Your task to perform on an android device: Add usb-a to the cart on bestbuy, then select checkout. Image 0: 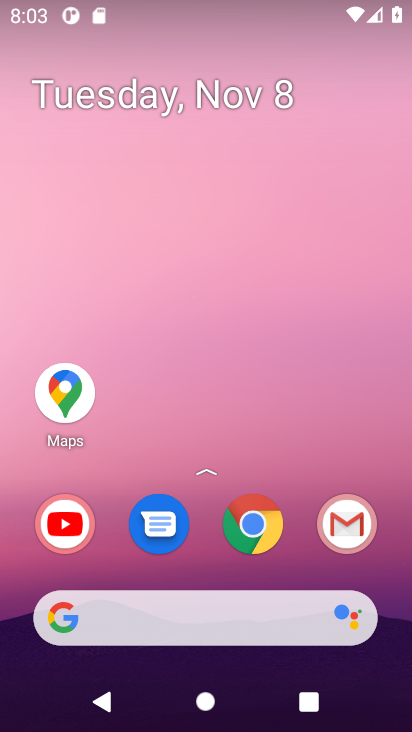
Step 0: click (257, 531)
Your task to perform on an android device: Add usb-a to the cart on bestbuy, then select checkout. Image 1: 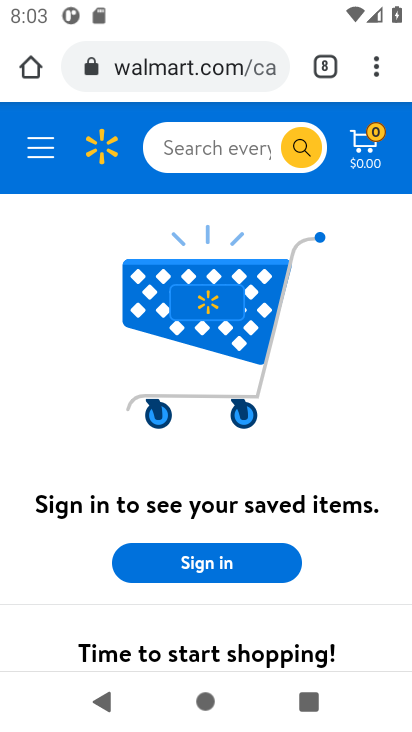
Step 1: click (191, 77)
Your task to perform on an android device: Add usb-a to the cart on bestbuy, then select checkout. Image 2: 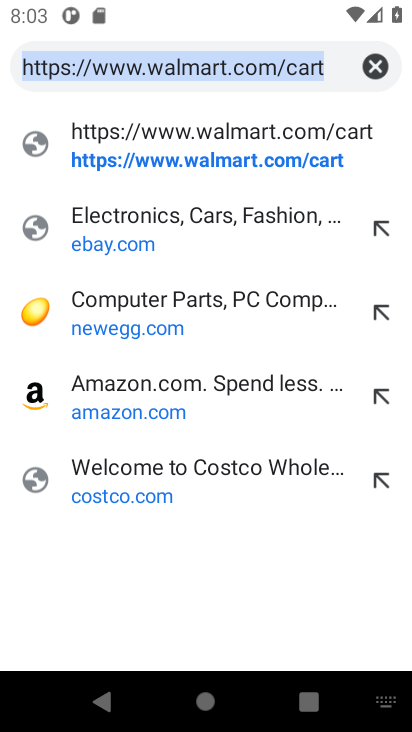
Step 2: type "bestbuy.com"
Your task to perform on an android device: Add usb-a to the cart on bestbuy, then select checkout. Image 3: 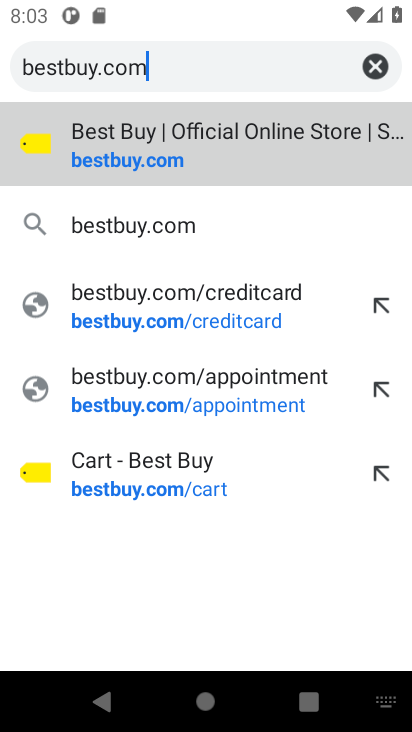
Step 3: click (126, 167)
Your task to perform on an android device: Add usb-a to the cart on bestbuy, then select checkout. Image 4: 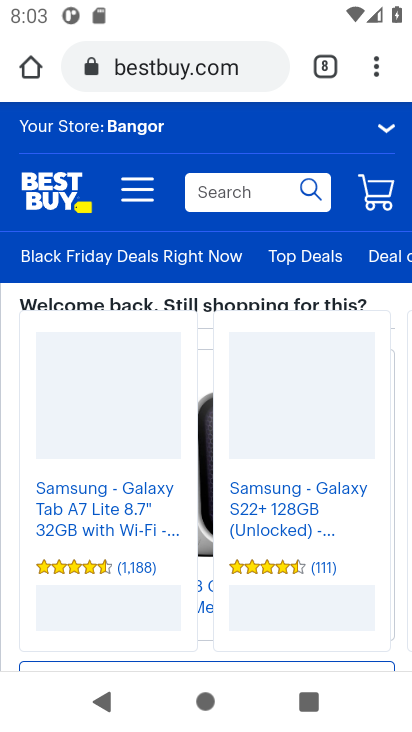
Step 4: click (232, 188)
Your task to perform on an android device: Add usb-a to the cart on bestbuy, then select checkout. Image 5: 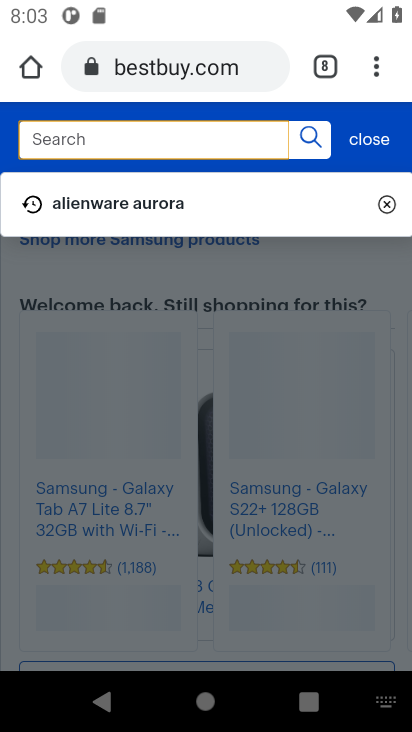
Step 5: type "usb-a"
Your task to perform on an android device: Add usb-a to the cart on bestbuy, then select checkout. Image 6: 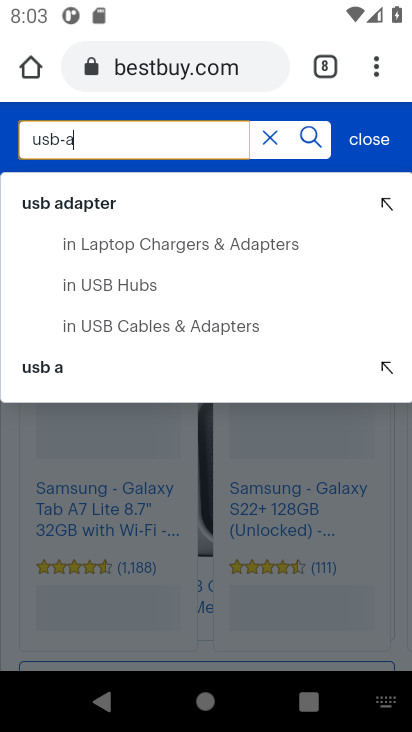
Step 6: click (53, 366)
Your task to perform on an android device: Add usb-a to the cart on bestbuy, then select checkout. Image 7: 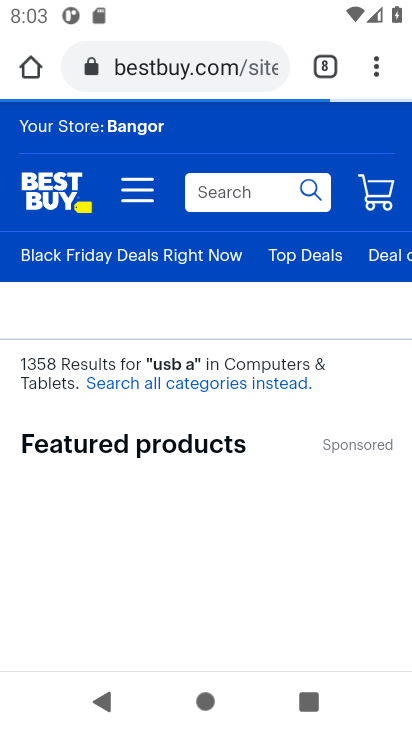
Step 7: click (313, 131)
Your task to perform on an android device: Add usb-a to the cart on bestbuy, then select checkout. Image 8: 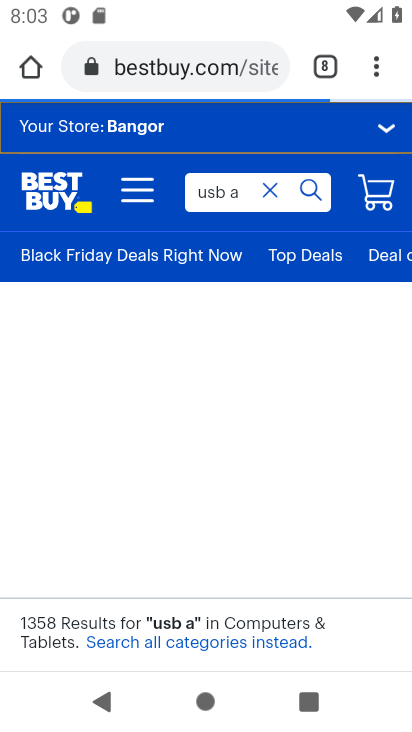
Step 8: drag from (199, 379) to (228, 245)
Your task to perform on an android device: Add usb-a to the cart on bestbuy, then select checkout. Image 9: 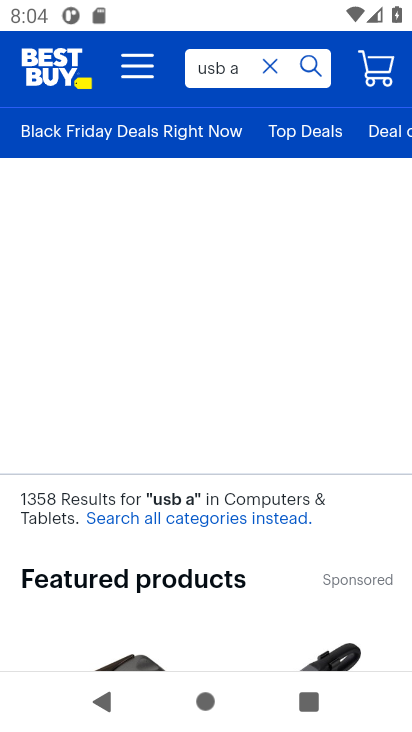
Step 9: drag from (209, 497) to (252, 244)
Your task to perform on an android device: Add usb-a to the cart on bestbuy, then select checkout. Image 10: 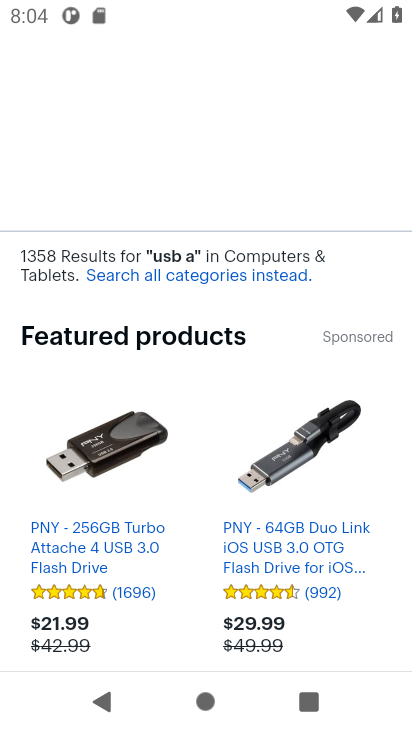
Step 10: drag from (192, 511) to (220, 340)
Your task to perform on an android device: Add usb-a to the cart on bestbuy, then select checkout. Image 11: 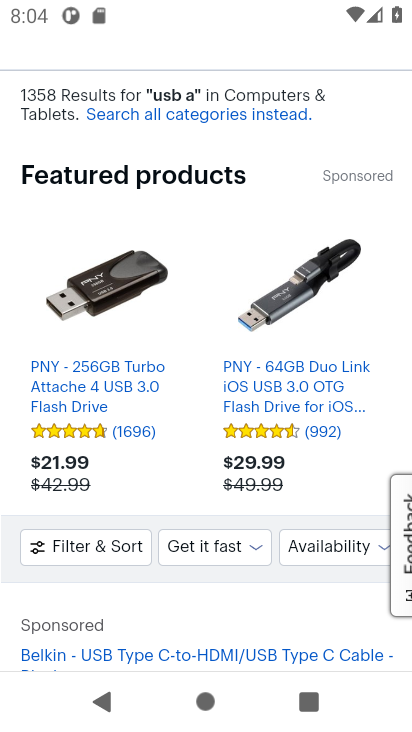
Step 11: drag from (158, 470) to (194, 153)
Your task to perform on an android device: Add usb-a to the cart on bestbuy, then select checkout. Image 12: 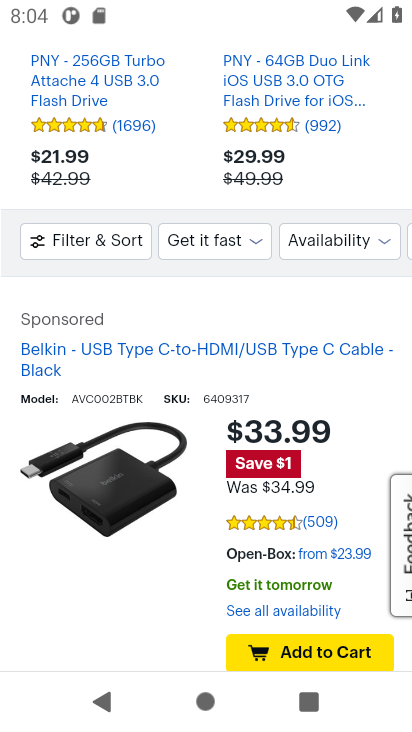
Step 12: drag from (164, 507) to (187, 345)
Your task to perform on an android device: Add usb-a to the cart on bestbuy, then select checkout. Image 13: 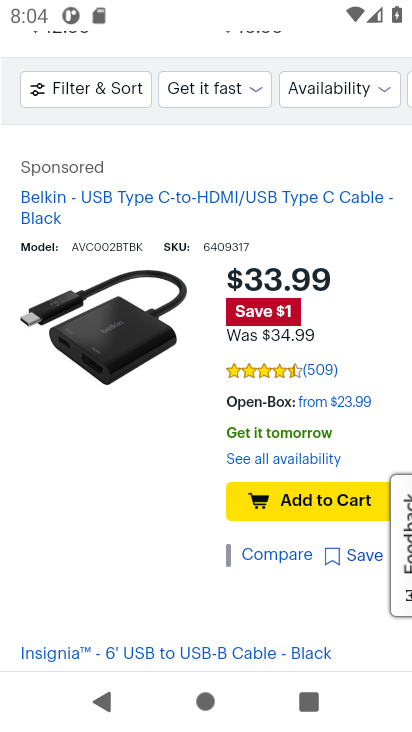
Step 13: drag from (172, 327) to (157, 626)
Your task to perform on an android device: Add usb-a to the cart on bestbuy, then select checkout. Image 14: 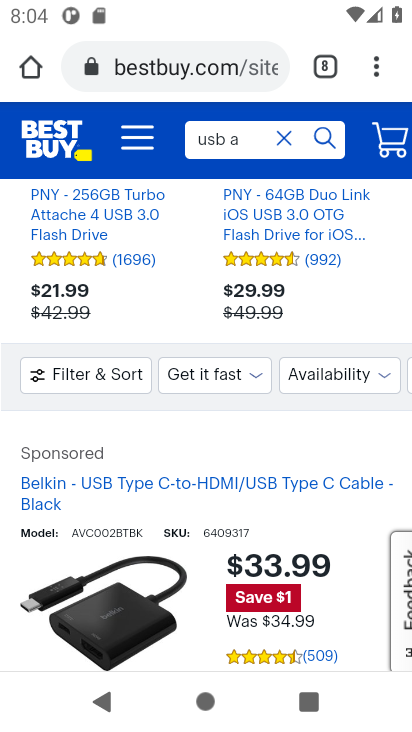
Step 14: click (326, 139)
Your task to perform on an android device: Add usb-a to the cart on bestbuy, then select checkout. Image 15: 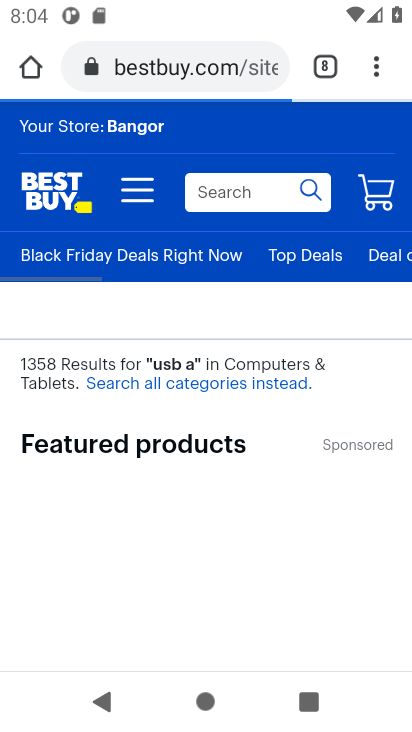
Step 15: click (322, 139)
Your task to perform on an android device: Add usb-a to the cart on bestbuy, then select checkout. Image 16: 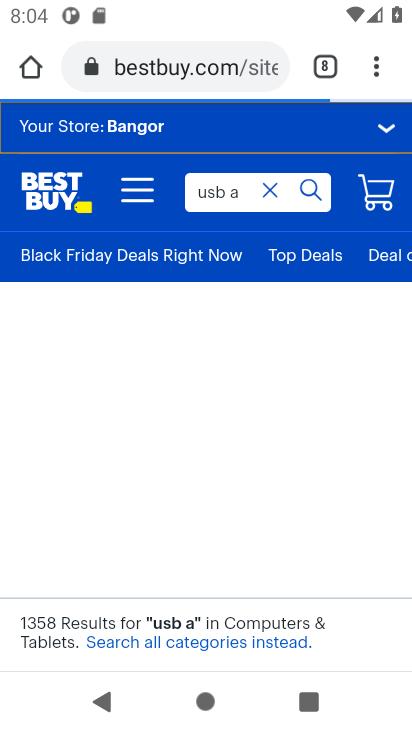
Step 16: drag from (166, 491) to (220, 148)
Your task to perform on an android device: Add usb-a to the cart on bestbuy, then select checkout. Image 17: 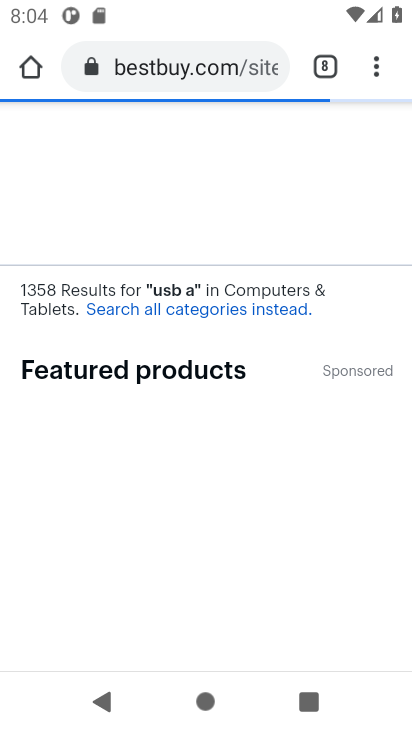
Step 17: drag from (153, 468) to (193, 103)
Your task to perform on an android device: Add usb-a to the cart on bestbuy, then select checkout. Image 18: 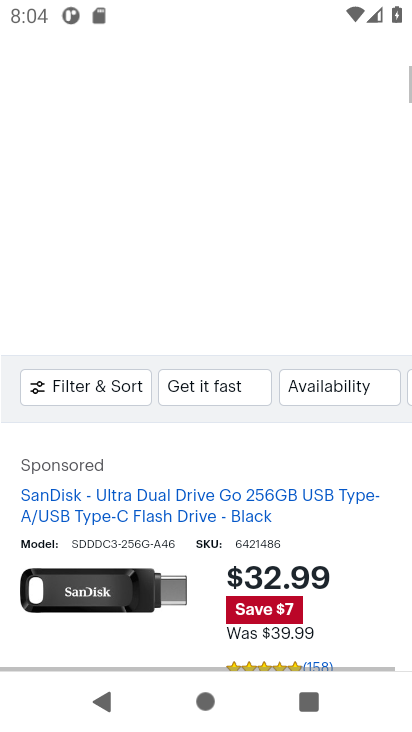
Step 18: drag from (143, 502) to (178, 230)
Your task to perform on an android device: Add usb-a to the cart on bestbuy, then select checkout. Image 19: 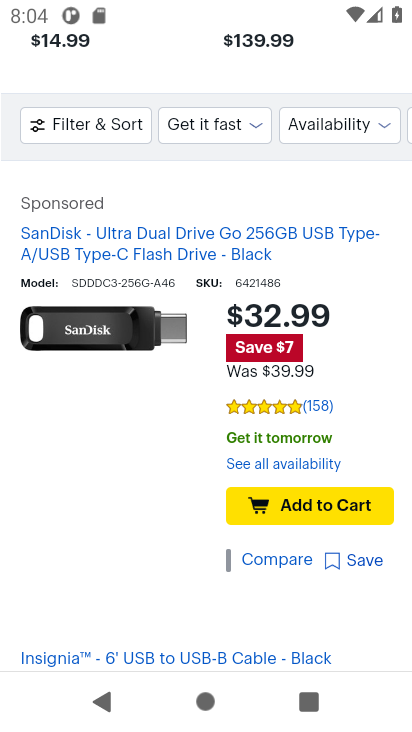
Step 19: drag from (185, 442) to (204, 100)
Your task to perform on an android device: Add usb-a to the cart on bestbuy, then select checkout. Image 20: 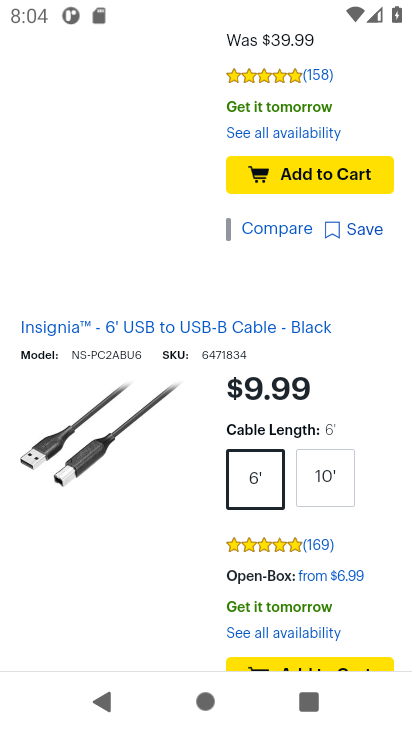
Step 20: drag from (144, 492) to (177, 183)
Your task to perform on an android device: Add usb-a to the cart on bestbuy, then select checkout. Image 21: 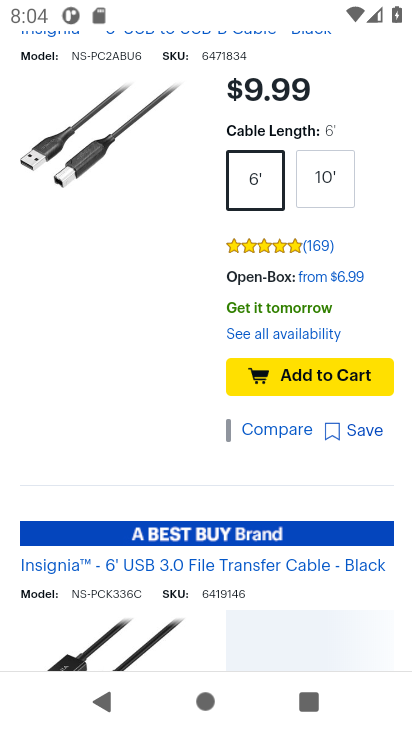
Step 21: drag from (142, 523) to (169, 178)
Your task to perform on an android device: Add usb-a to the cart on bestbuy, then select checkout. Image 22: 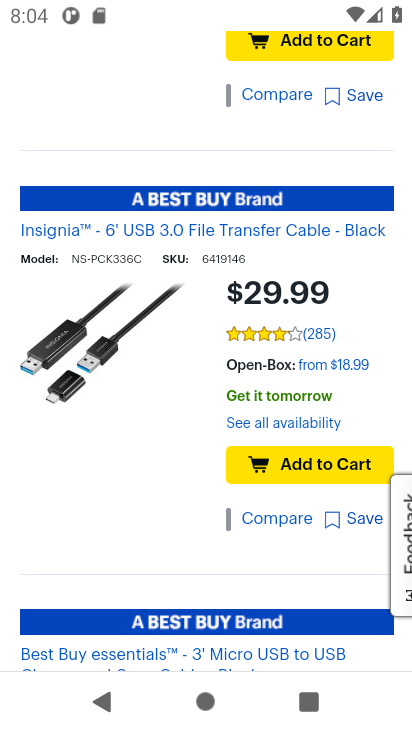
Step 22: drag from (151, 444) to (174, 107)
Your task to perform on an android device: Add usb-a to the cart on bestbuy, then select checkout. Image 23: 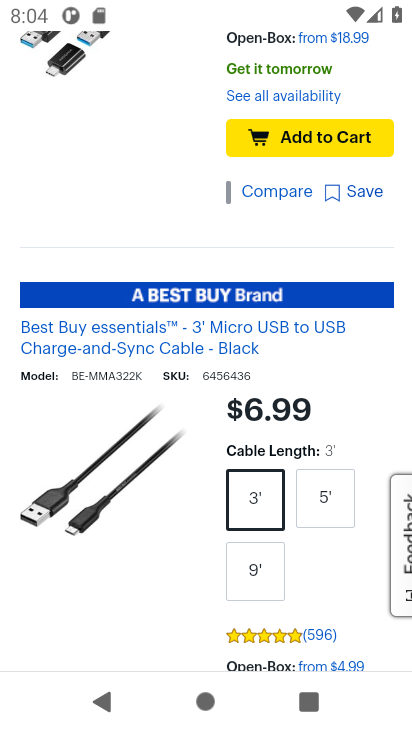
Step 23: drag from (162, 499) to (141, 169)
Your task to perform on an android device: Add usb-a to the cart on bestbuy, then select checkout. Image 24: 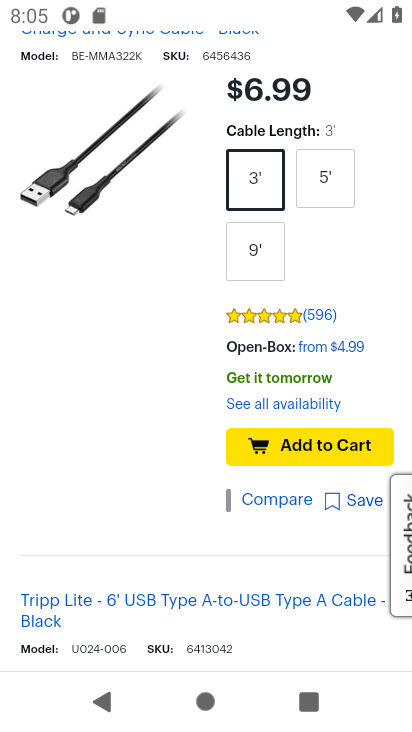
Step 24: drag from (168, 546) to (189, 181)
Your task to perform on an android device: Add usb-a to the cart on bestbuy, then select checkout. Image 25: 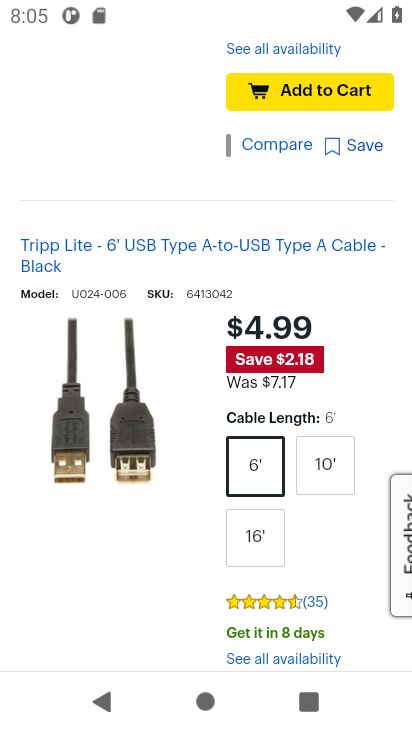
Step 25: click (152, 409)
Your task to perform on an android device: Add usb-a to the cart on bestbuy, then select checkout. Image 26: 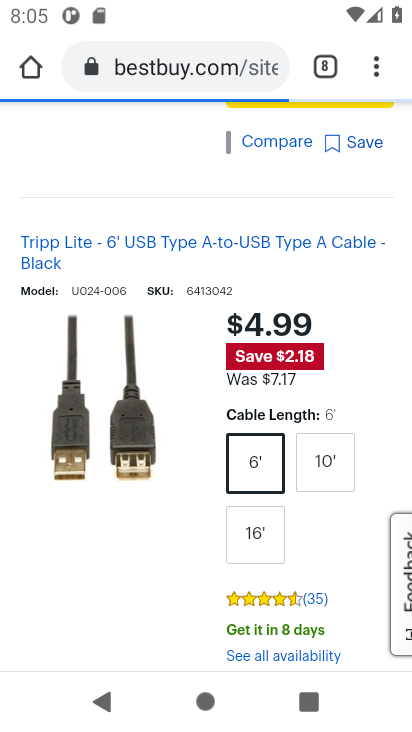
Step 26: drag from (138, 443) to (154, 361)
Your task to perform on an android device: Add usb-a to the cart on bestbuy, then select checkout. Image 27: 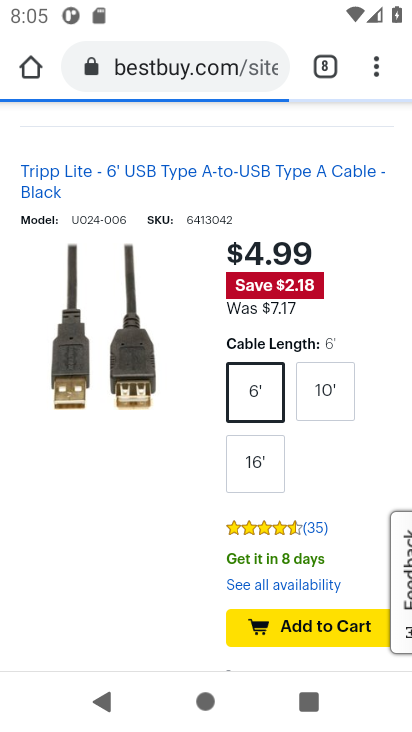
Step 27: click (288, 629)
Your task to perform on an android device: Add usb-a to the cart on bestbuy, then select checkout. Image 28: 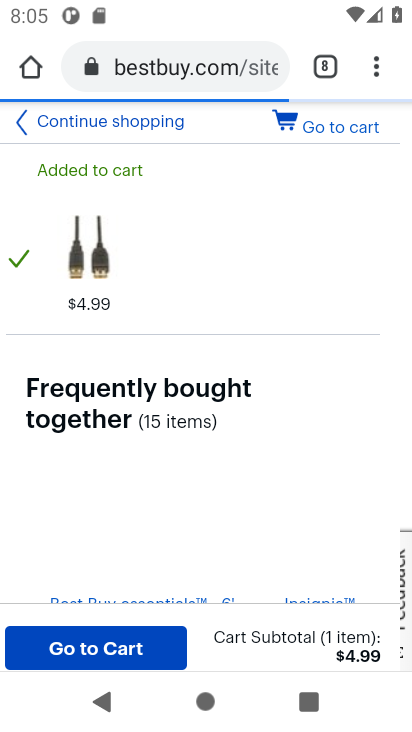
Step 28: click (322, 125)
Your task to perform on an android device: Add usb-a to the cart on bestbuy, then select checkout. Image 29: 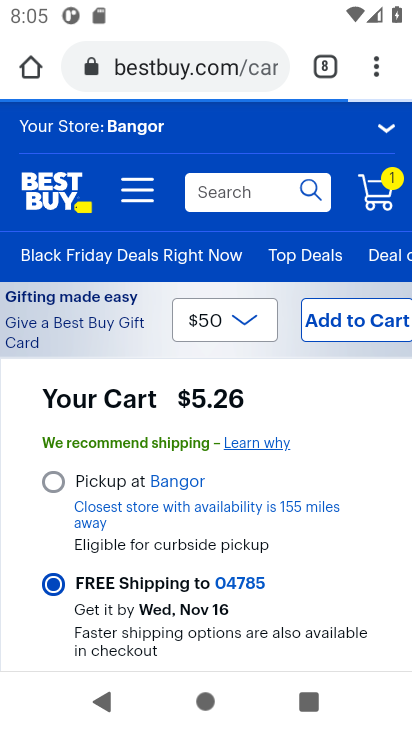
Step 29: drag from (225, 520) to (259, 220)
Your task to perform on an android device: Add usb-a to the cart on bestbuy, then select checkout. Image 30: 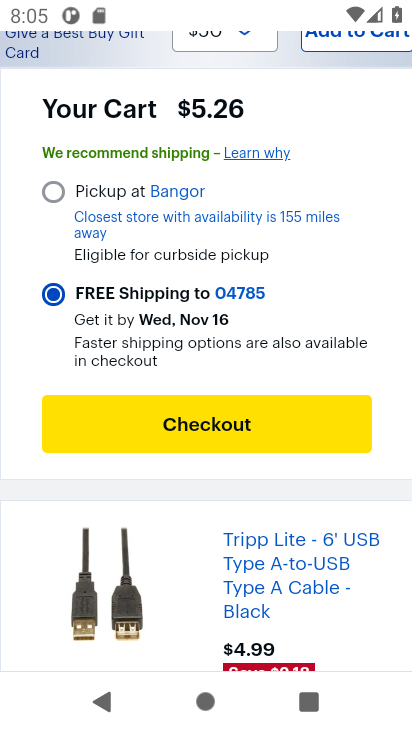
Step 30: click (196, 439)
Your task to perform on an android device: Add usb-a to the cart on bestbuy, then select checkout. Image 31: 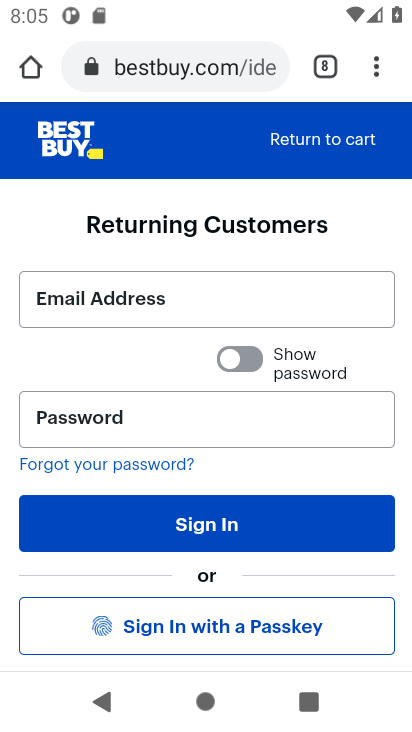
Step 31: task complete